Your task to perform on an android device: See recent photos Image 0: 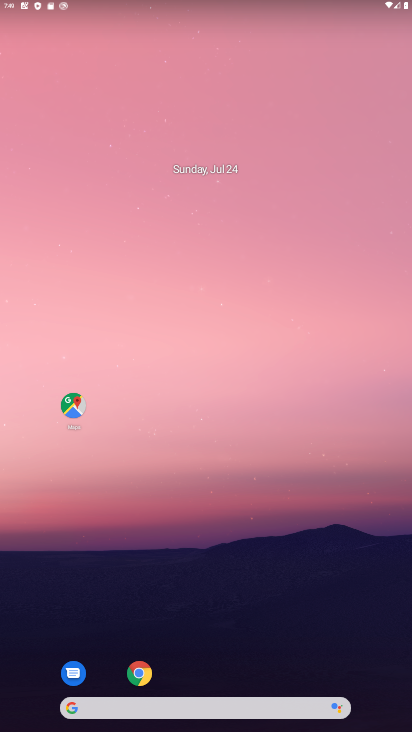
Step 0: click (180, 282)
Your task to perform on an android device: See recent photos Image 1: 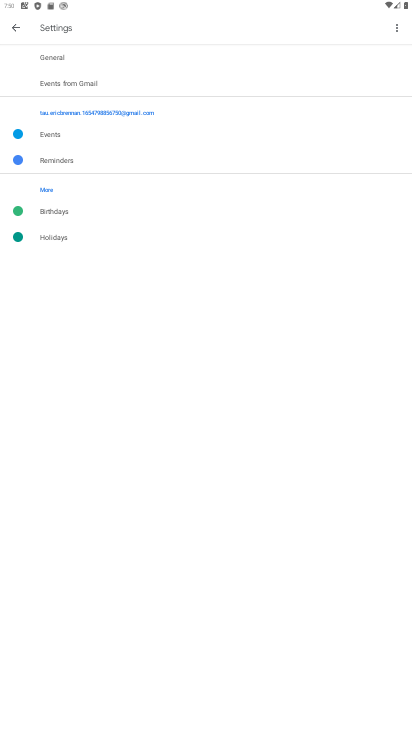
Step 1: press home button
Your task to perform on an android device: See recent photos Image 2: 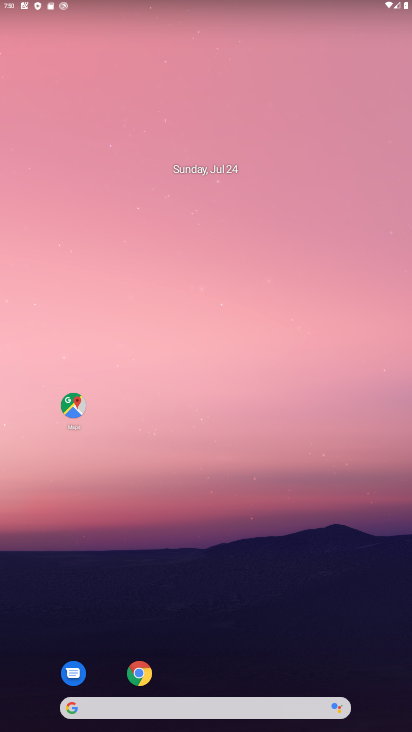
Step 2: drag from (199, 567) to (247, 157)
Your task to perform on an android device: See recent photos Image 3: 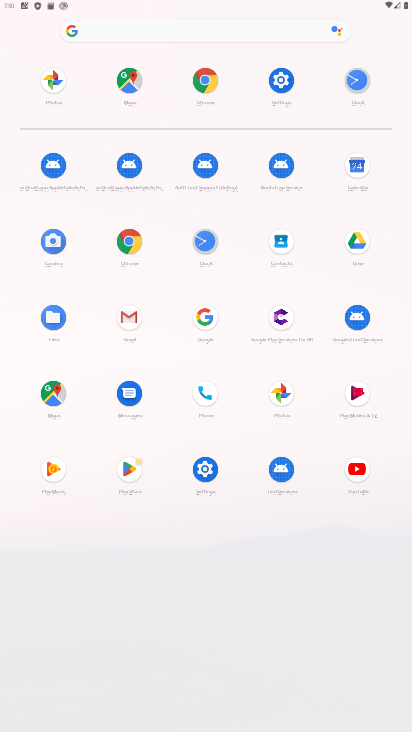
Step 3: click (287, 396)
Your task to perform on an android device: See recent photos Image 4: 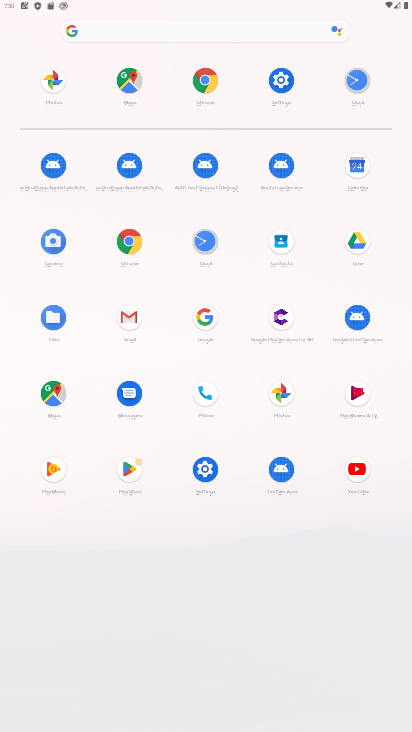
Step 4: click (286, 395)
Your task to perform on an android device: See recent photos Image 5: 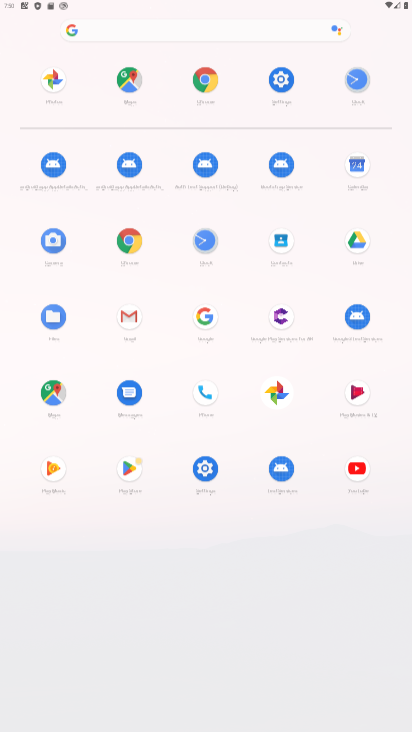
Step 5: click (284, 393)
Your task to perform on an android device: See recent photos Image 6: 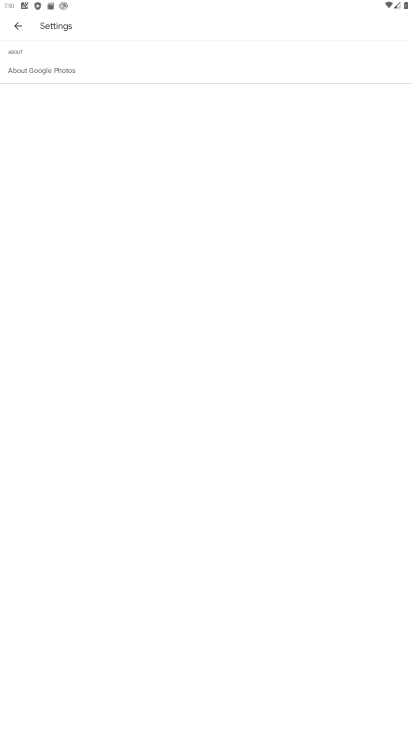
Step 6: drag from (223, 576) to (333, 248)
Your task to perform on an android device: See recent photos Image 7: 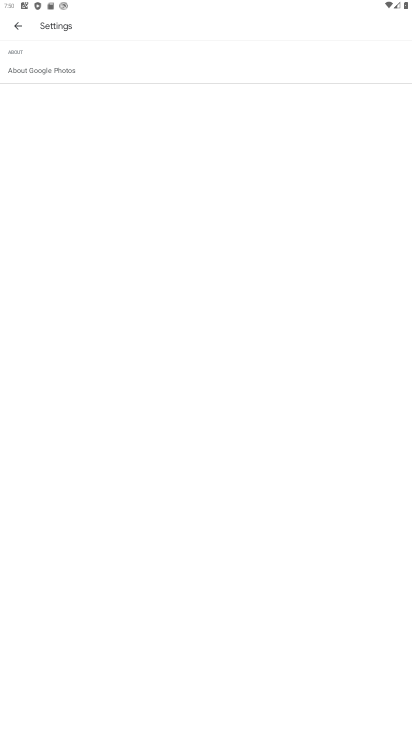
Step 7: click (17, 26)
Your task to perform on an android device: See recent photos Image 8: 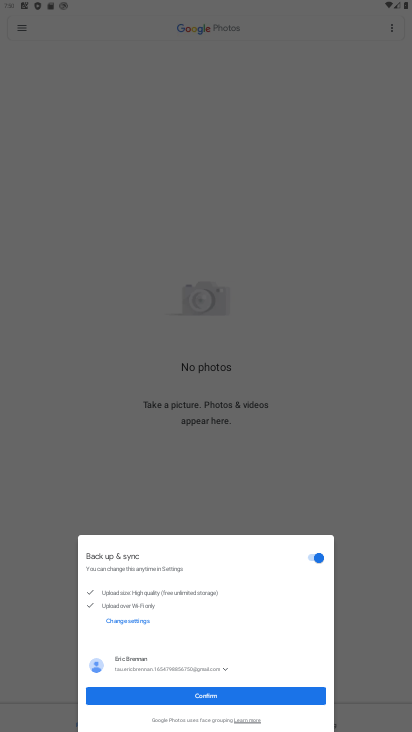
Step 8: click (185, 695)
Your task to perform on an android device: See recent photos Image 9: 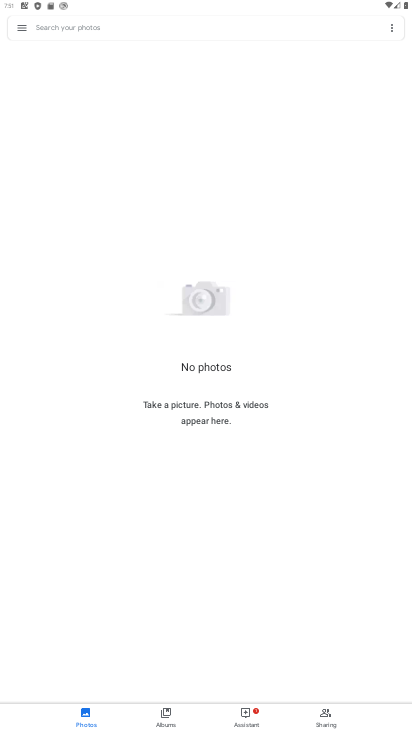
Step 9: task complete